Your task to perform on an android device: turn vacation reply on in the gmail app Image 0: 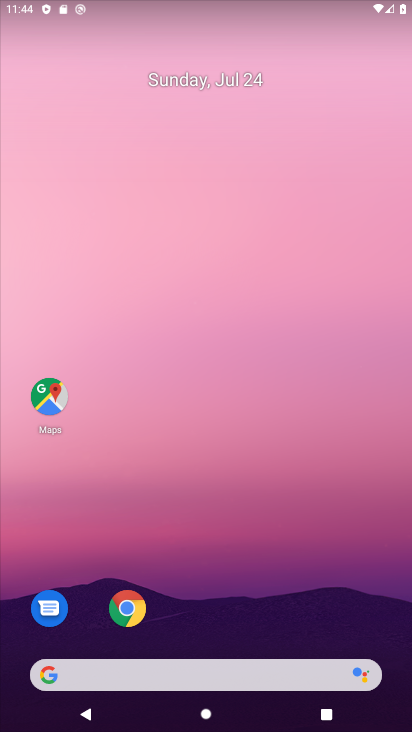
Step 0: drag from (35, 515) to (225, 55)
Your task to perform on an android device: turn vacation reply on in the gmail app Image 1: 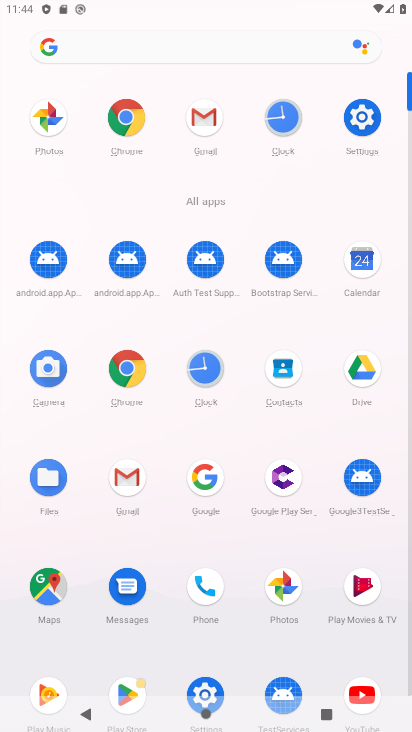
Step 1: click (201, 116)
Your task to perform on an android device: turn vacation reply on in the gmail app Image 2: 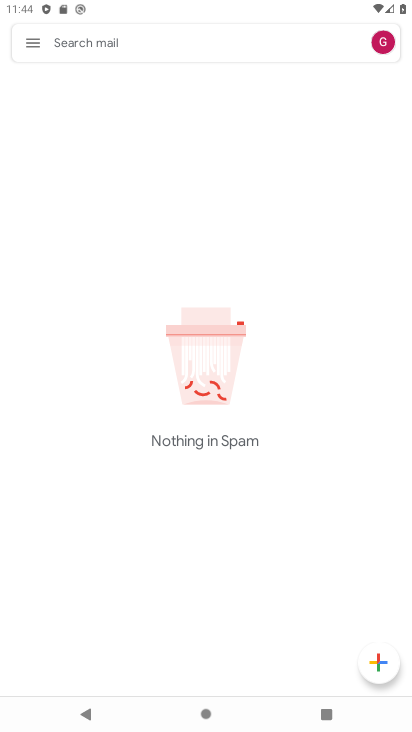
Step 2: click (43, 36)
Your task to perform on an android device: turn vacation reply on in the gmail app Image 3: 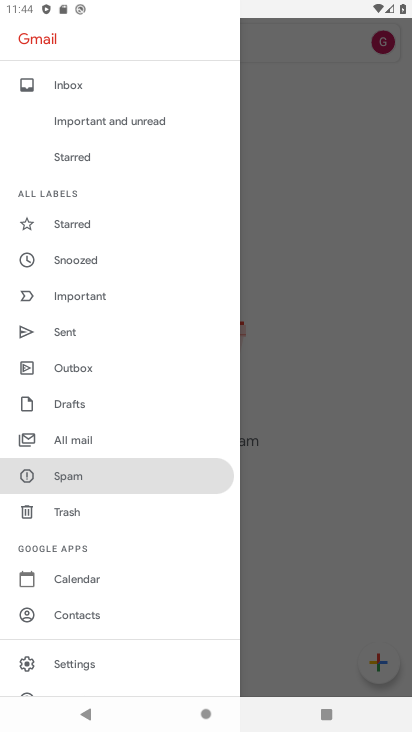
Step 3: click (76, 650)
Your task to perform on an android device: turn vacation reply on in the gmail app Image 4: 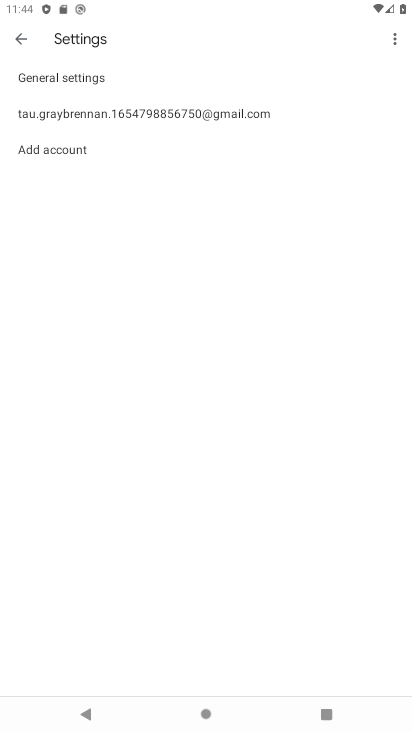
Step 4: click (80, 109)
Your task to perform on an android device: turn vacation reply on in the gmail app Image 5: 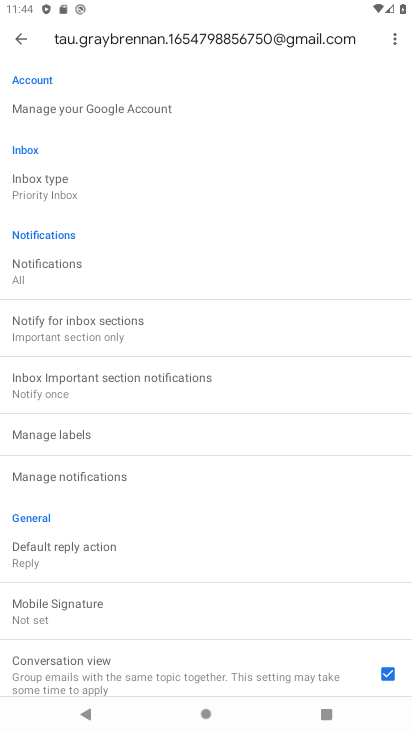
Step 5: drag from (58, 728) to (171, 123)
Your task to perform on an android device: turn vacation reply on in the gmail app Image 6: 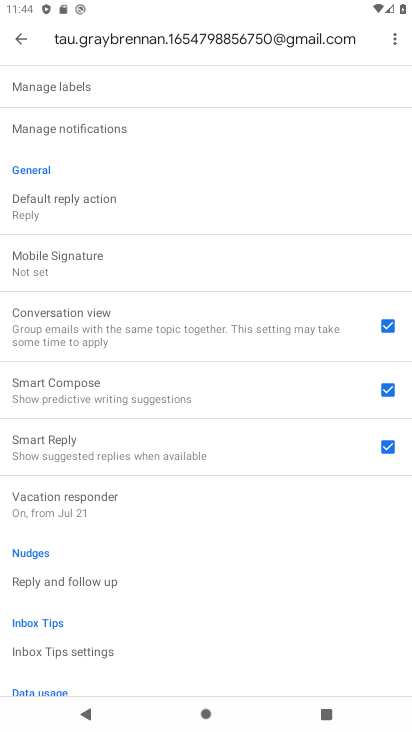
Step 6: click (125, 504)
Your task to perform on an android device: turn vacation reply on in the gmail app Image 7: 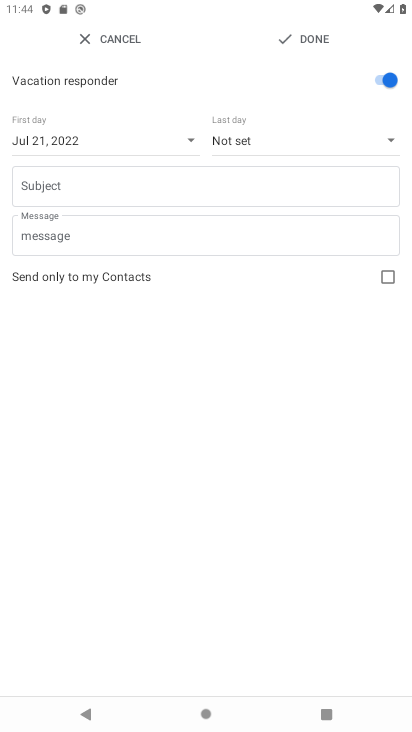
Step 7: task complete